Your task to perform on an android device: toggle location history Image 0: 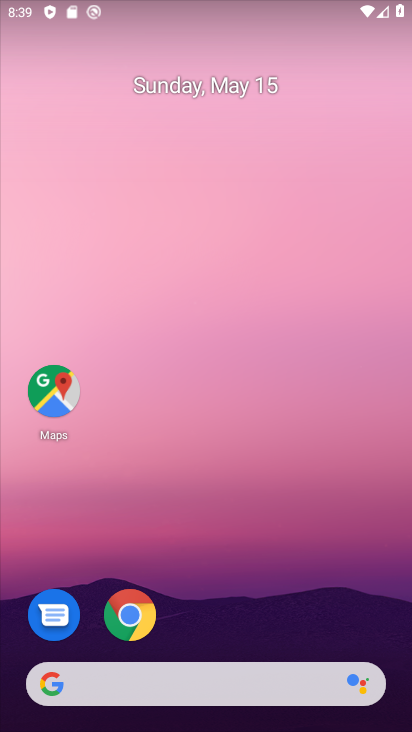
Step 0: drag from (243, 570) to (174, 2)
Your task to perform on an android device: toggle location history Image 1: 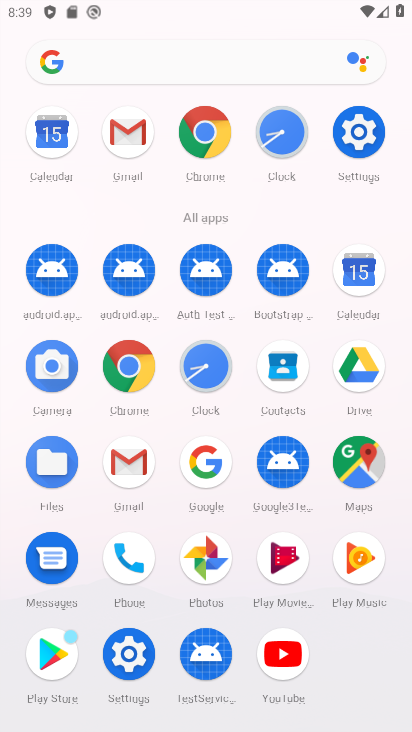
Step 1: drag from (12, 530) to (7, 264)
Your task to perform on an android device: toggle location history Image 2: 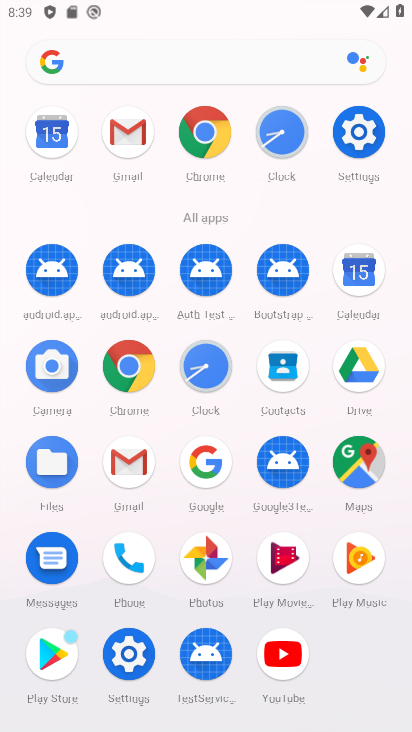
Step 2: click (125, 652)
Your task to perform on an android device: toggle location history Image 3: 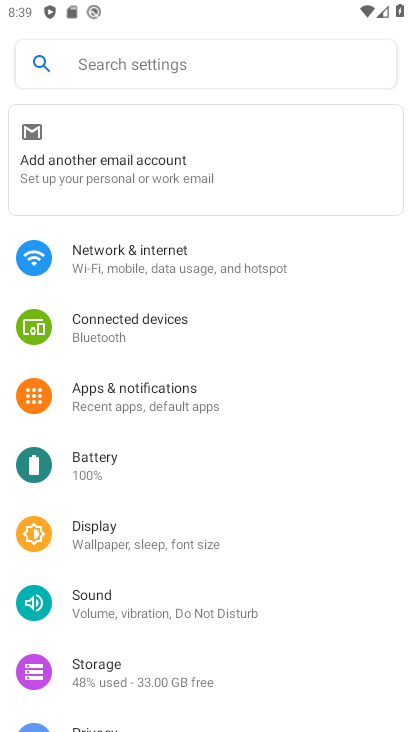
Step 3: drag from (223, 558) to (230, 240)
Your task to perform on an android device: toggle location history Image 4: 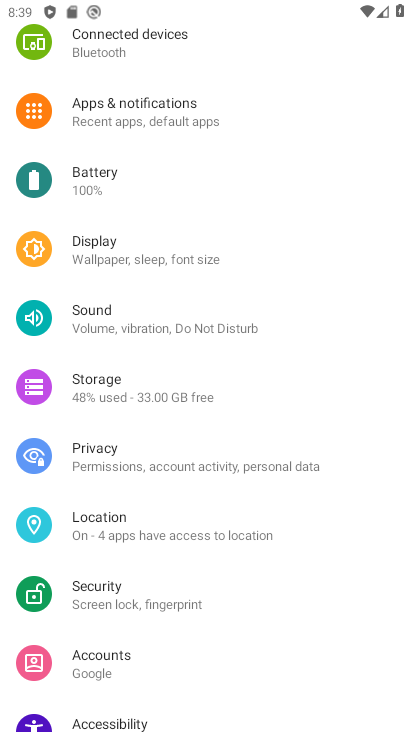
Step 4: click (149, 526)
Your task to perform on an android device: toggle location history Image 5: 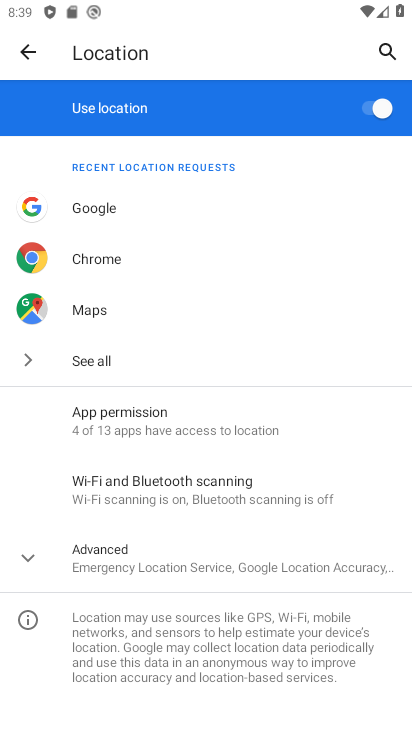
Step 5: click (38, 551)
Your task to perform on an android device: toggle location history Image 6: 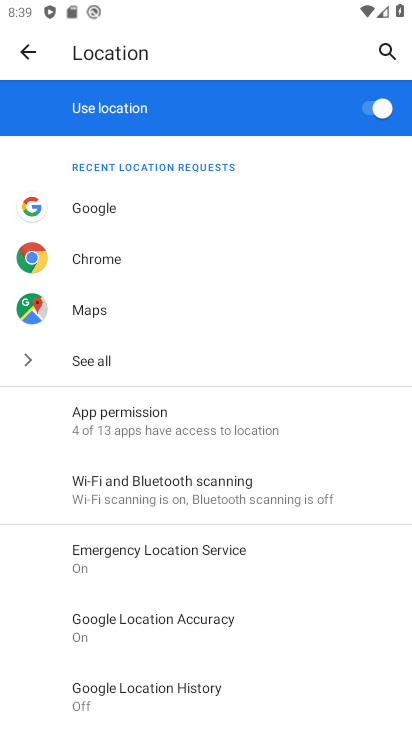
Step 6: drag from (263, 640) to (275, 351)
Your task to perform on an android device: toggle location history Image 7: 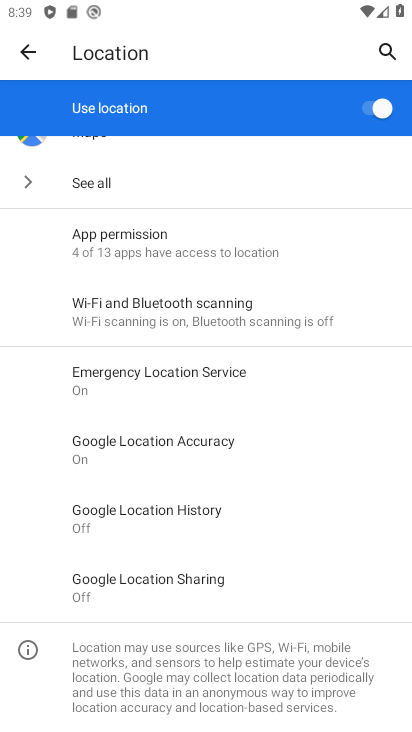
Step 7: click (159, 504)
Your task to perform on an android device: toggle location history Image 8: 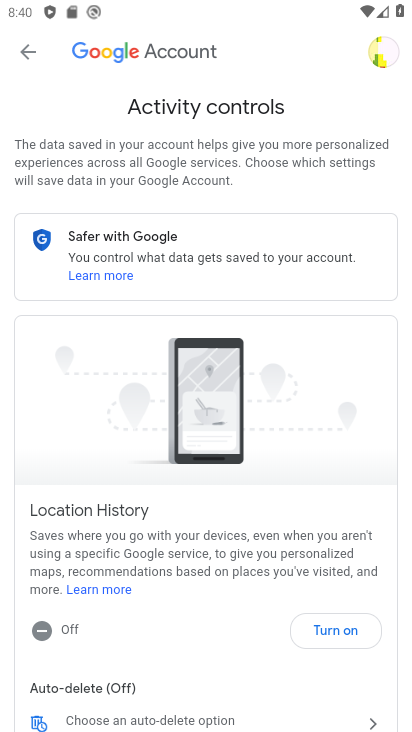
Step 8: drag from (232, 502) to (240, 139)
Your task to perform on an android device: toggle location history Image 9: 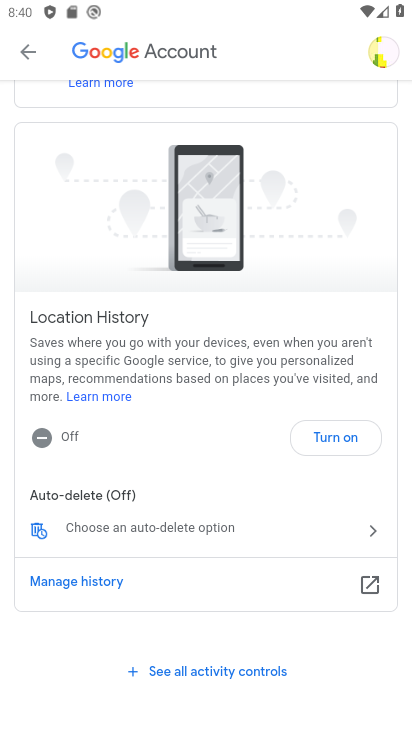
Step 9: click (38, 535)
Your task to perform on an android device: toggle location history Image 10: 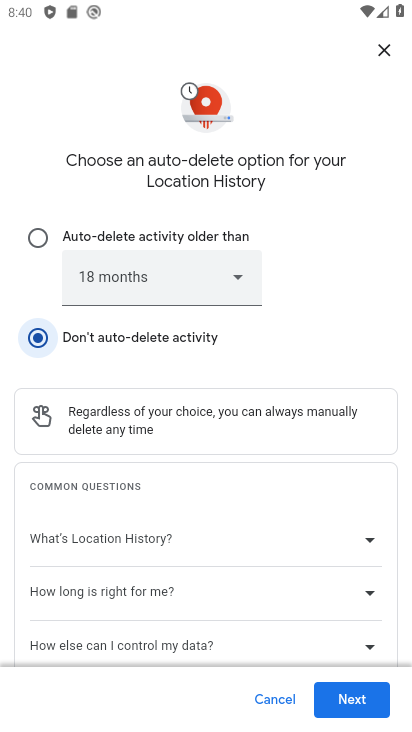
Step 10: click (367, 690)
Your task to perform on an android device: toggle location history Image 11: 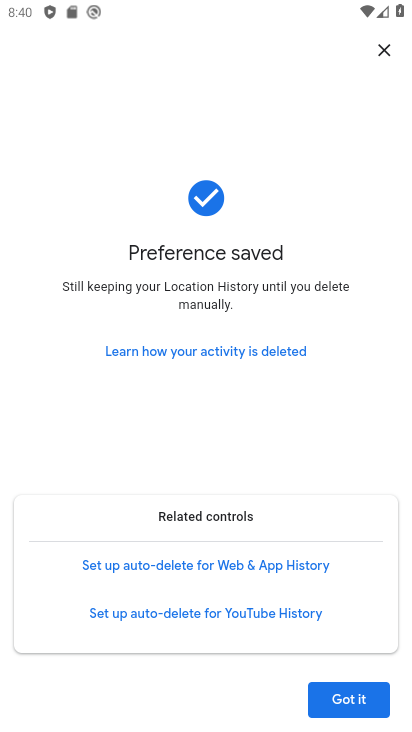
Step 11: task complete